Your task to perform on an android device: Open Google Maps and go to "Timeline" Image 0: 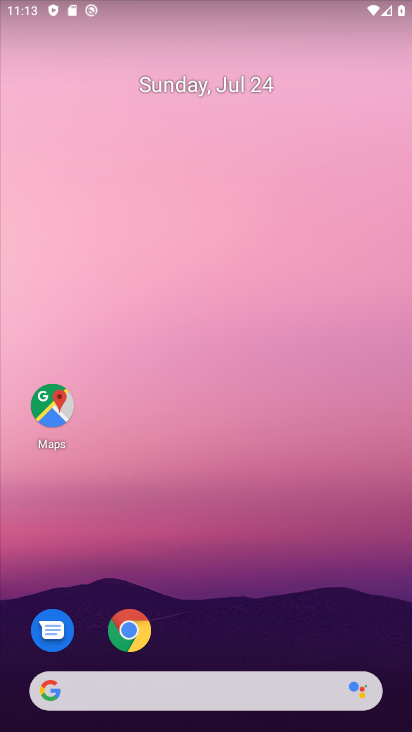
Step 0: drag from (186, 602) to (203, 47)
Your task to perform on an android device: Open Google Maps and go to "Timeline" Image 1: 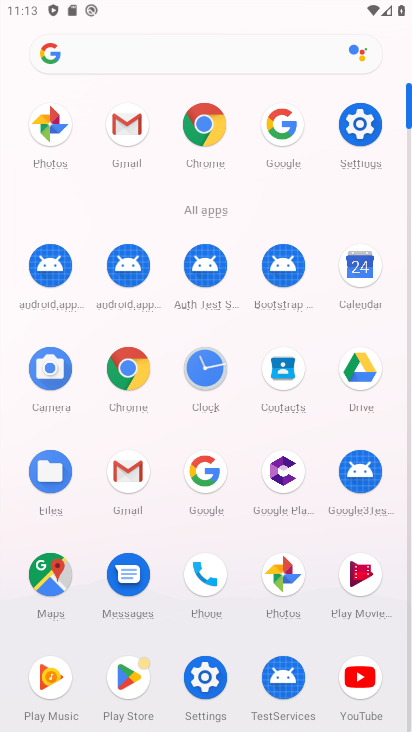
Step 1: click (44, 589)
Your task to perform on an android device: Open Google Maps and go to "Timeline" Image 2: 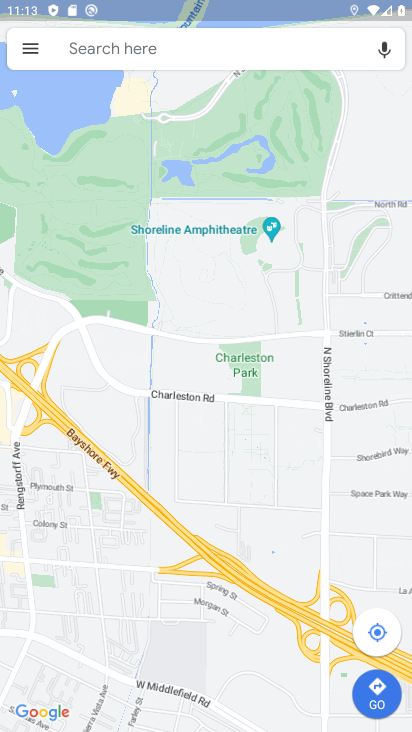
Step 2: click (30, 53)
Your task to perform on an android device: Open Google Maps and go to "Timeline" Image 3: 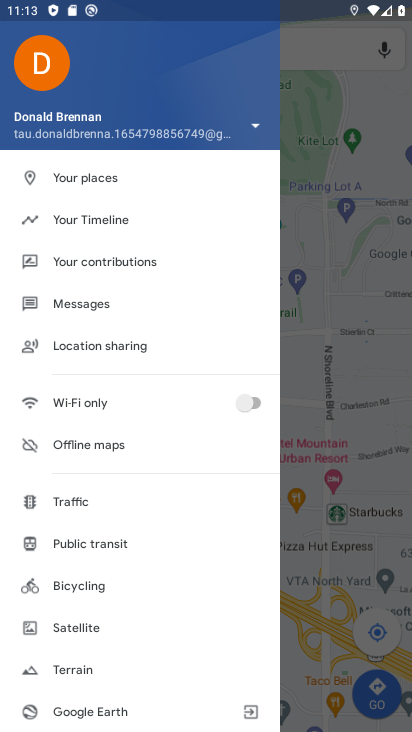
Step 3: click (64, 222)
Your task to perform on an android device: Open Google Maps and go to "Timeline" Image 4: 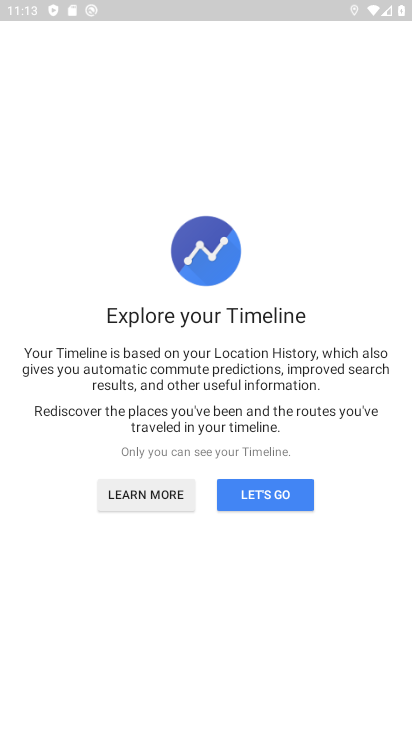
Step 4: click (250, 502)
Your task to perform on an android device: Open Google Maps and go to "Timeline" Image 5: 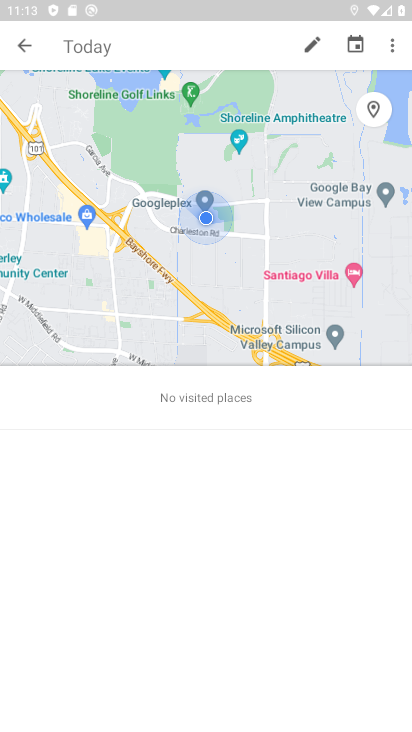
Step 5: task complete